Your task to perform on an android device: turn on javascript in the chrome app Image 0: 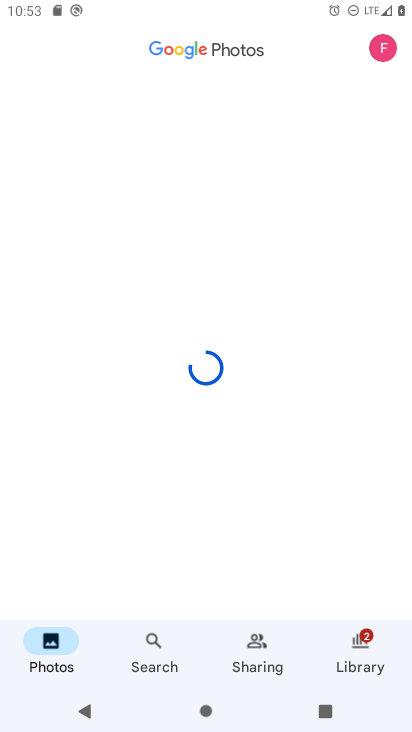
Step 0: press home button
Your task to perform on an android device: turn on javascript in the chrome app Image 1: 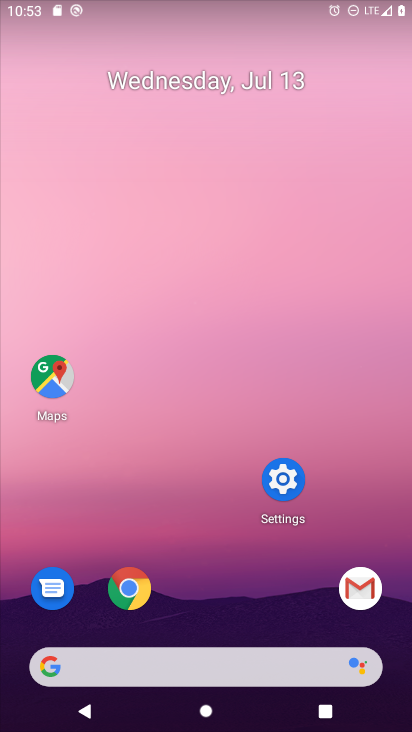
Step 1: click (129, 587)
Your task to perform on an android device: turn on javascript in the chrome app Image 2: 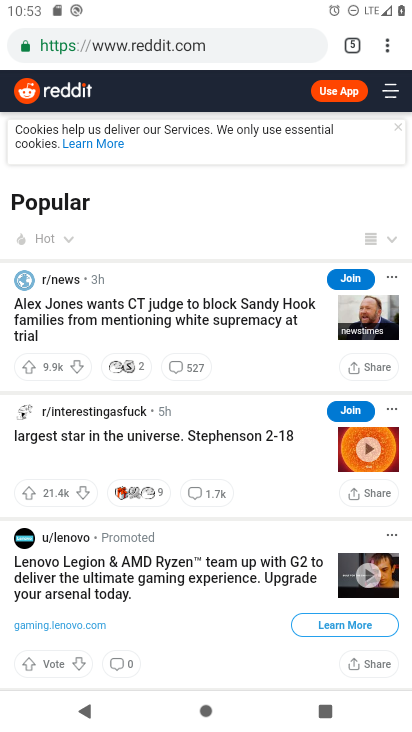
Step 2: click (382, 45)
Your task to perform on an android device: turn on javascript in the chrome app Image 3: 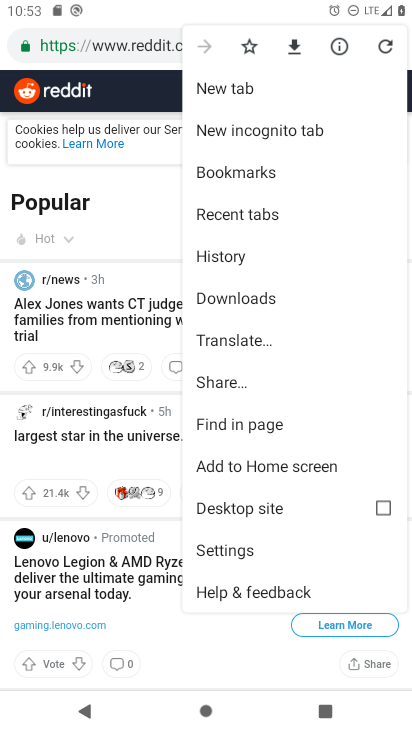
Step 3: click (221, 545)
Your task to perform on an android device: turn on javascript in the chrome app Image 4: 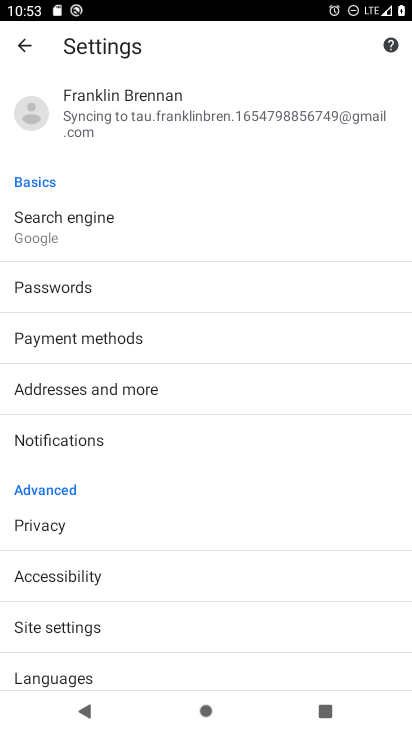
Step 4: click (105, 641)
Your task to perform on an android device: turn on javascript in the chrome app Image 5: 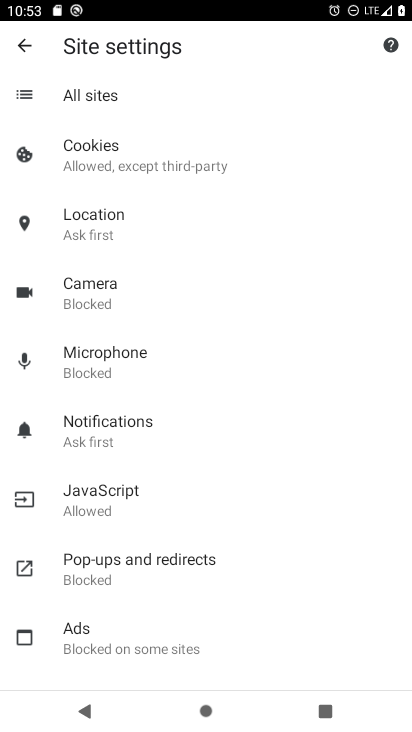
Step 5: click (77, 494)
Your task to perform on an android device: turn on javascript in the chrome app Image 6: 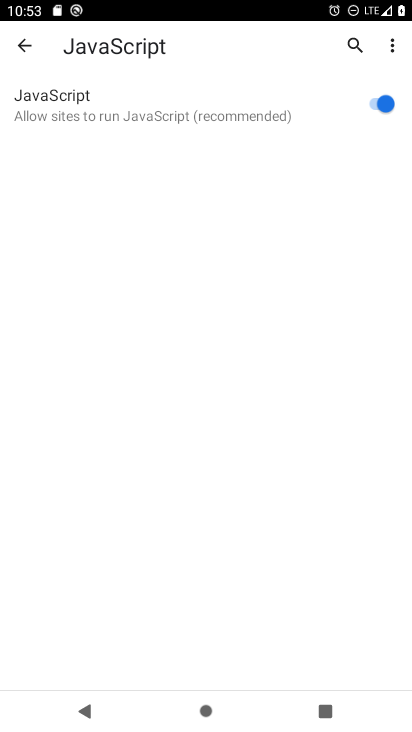
Step 6: click (384, 109)
Your task to perform on an android device: turn on javascript in the chrome app Image 7: 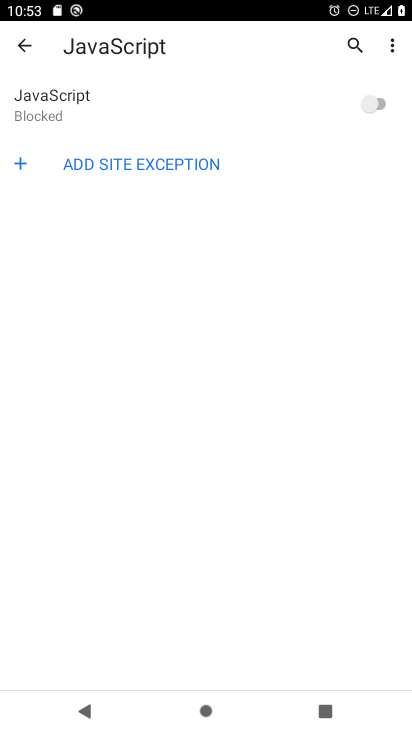
Step 7: click (384, 109)
Your task to perform on an android device: turn on javascript in the chrome app Image 8: 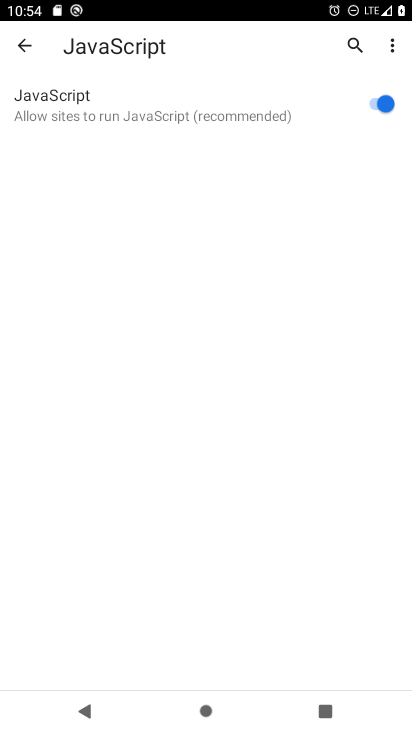
Step 8: task complete